Your task to perform on an android device: Go to eBay Image 0: 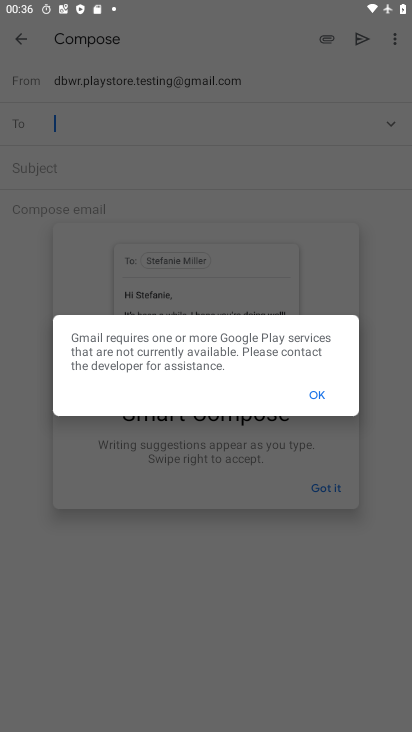
Step 0: press home button
Your task to perform on an android device: Go to eBay Image 1: 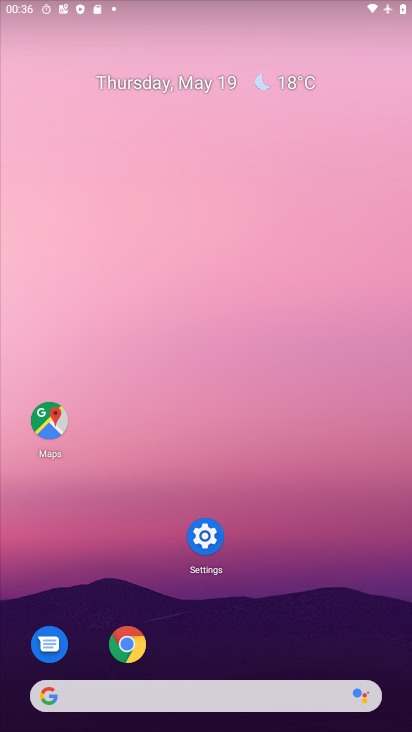
Step 1: drag from (301, 578) to (304, 169)
Your task to perform on an android device: Go to eBay Image 2: 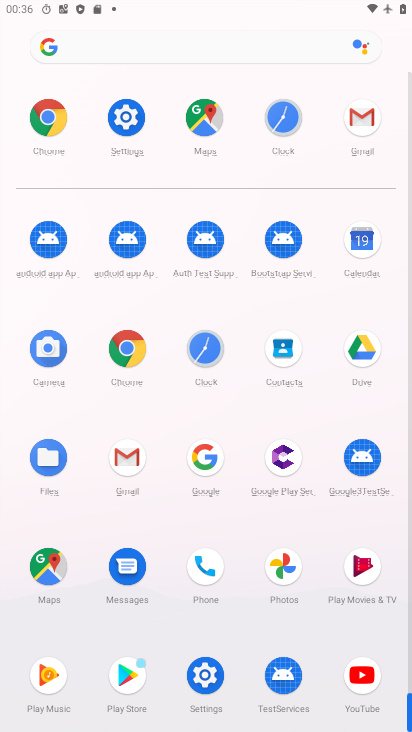
Step 2: click (54, 123)
Your task to perform on an android device: Go to eBay Image 3: 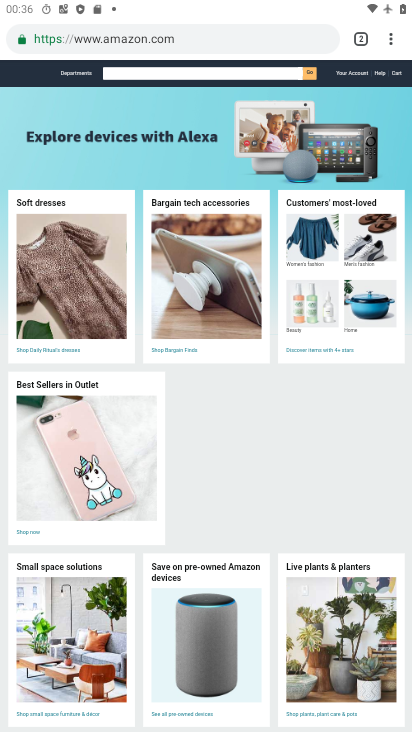
Step 3: click (228, 40)
Your task to perform on an android device: Go to eBay Image 4: 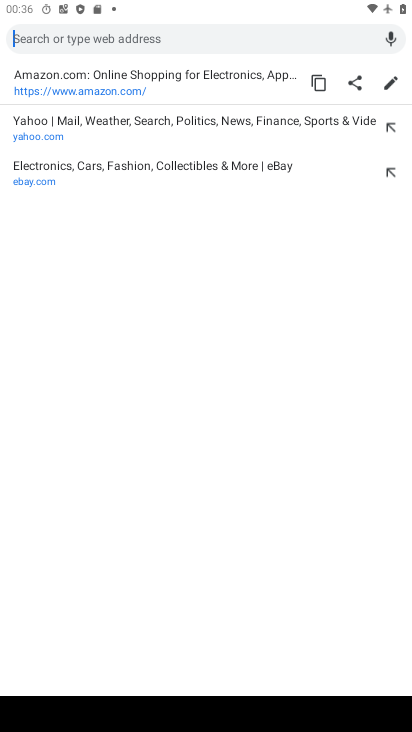
Step 4: click (50, 180)
Your task to perform on an android device: Go to eBay Image 5: 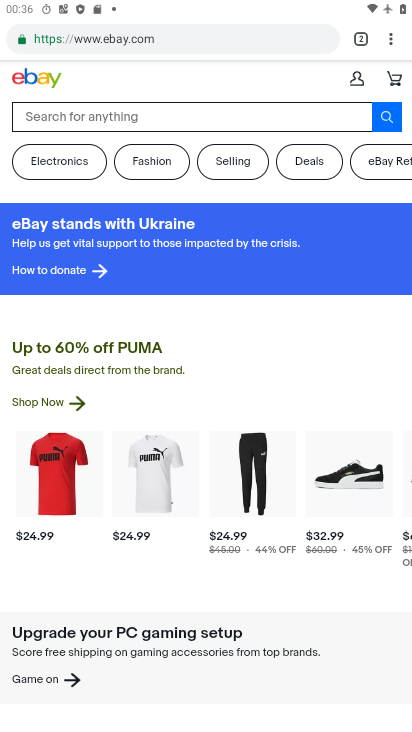
Step 5: task complete